Your task to perform on an android device: delete the emails in spam in the gmail app Image 0: 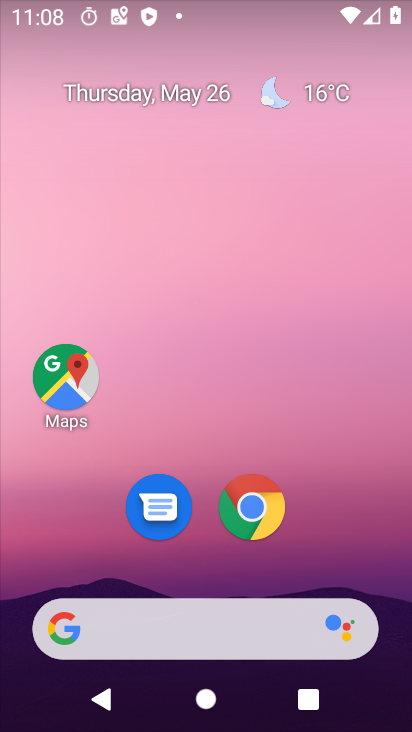
Step 0: drag from (230, 594) to (261, 287)
Your task to perform on an android device: delete the emails in spam in the gmail app Image 1: 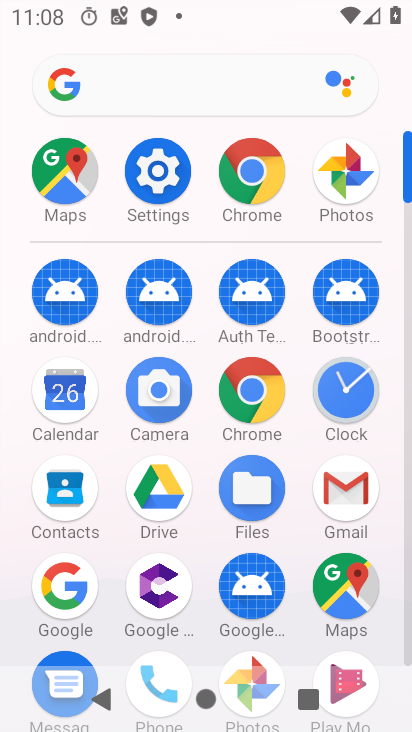
Step 1: click (343, 493)
Your task to perform on an android device: delete the emails in spam in the gmail app Image 2: 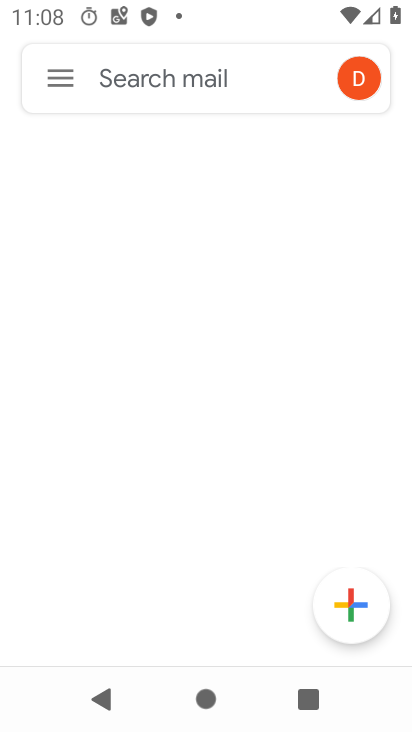
Step 2: click (61, 76)
Your task to perform on an android device: delete the emails in spam in the gmail app Image 3: 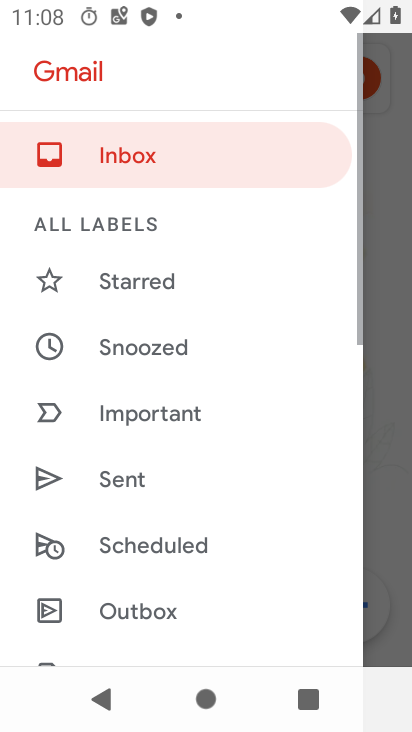
Step 3: drag from (185, 627) to (185, 216)
Your task to perform on an android device: delete the emails in spam in the gmail app Image 4: 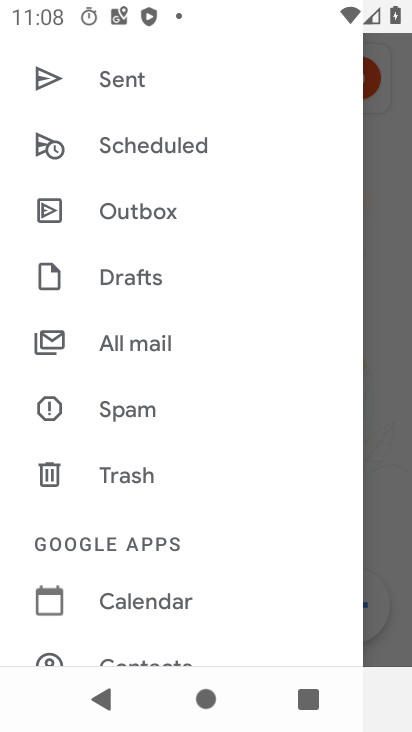
Step 4: click (143, 417)
Your task to perform on an android device: delete the emails in spam in the gmail app Image 5: 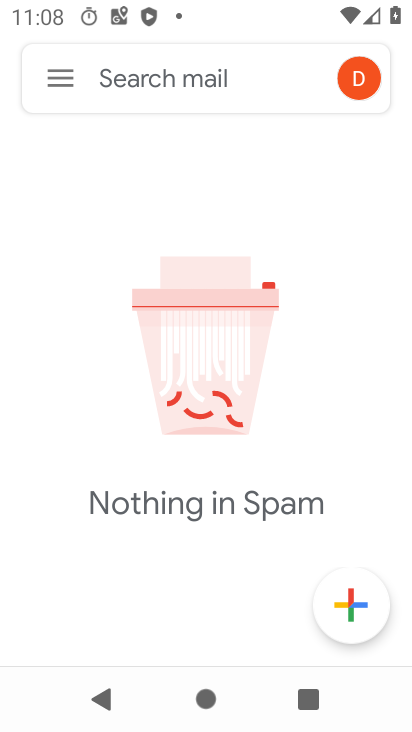
Step 5: task complete